Your task to perform on an android device: turn on showing notifications on the lock screen Image 0: 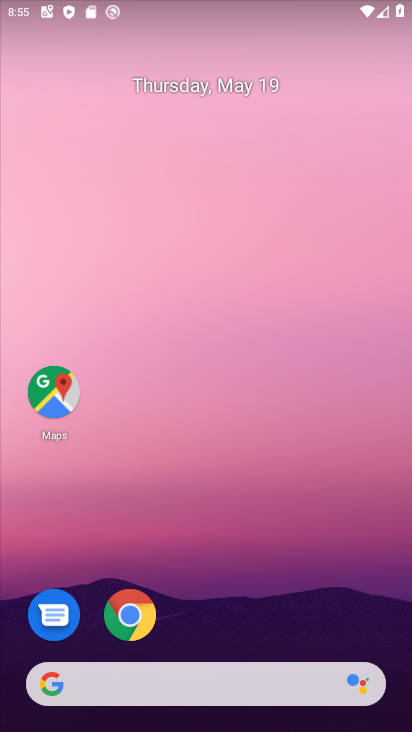
Step 0: drag from (226, 563) to (369, 5)
Your task to perform on an android device: turn on showing notifications on the lock screen Image 1: 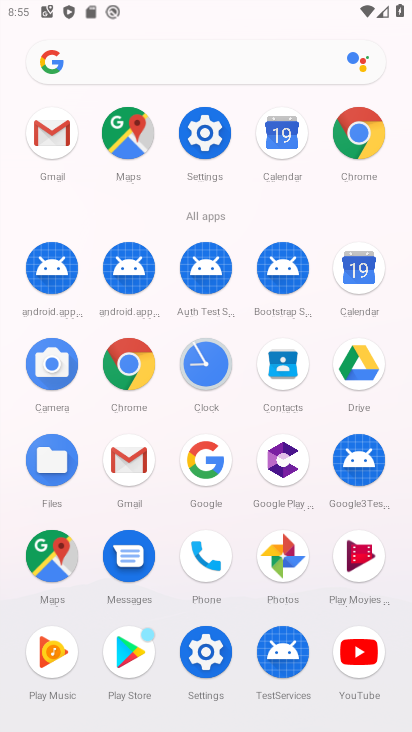
Step 1: click (205, 668)
Your task to perform on an android device: turn on showing notifications on the lock screen Image 2: 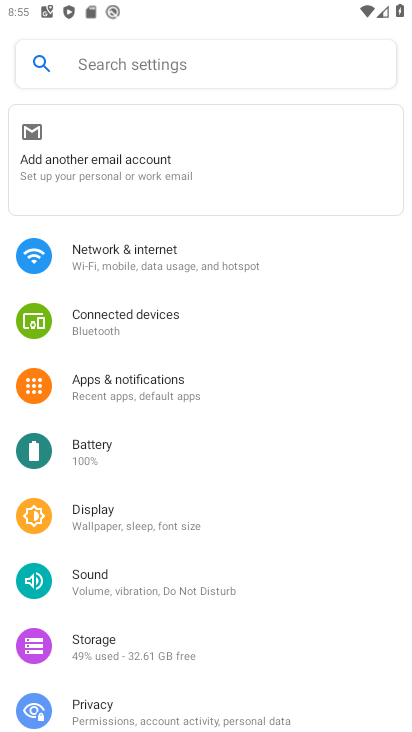
Step 2: click (148, 385)
Your task to perform on an android device: turn on showing notifications on the lock screen Image 3: 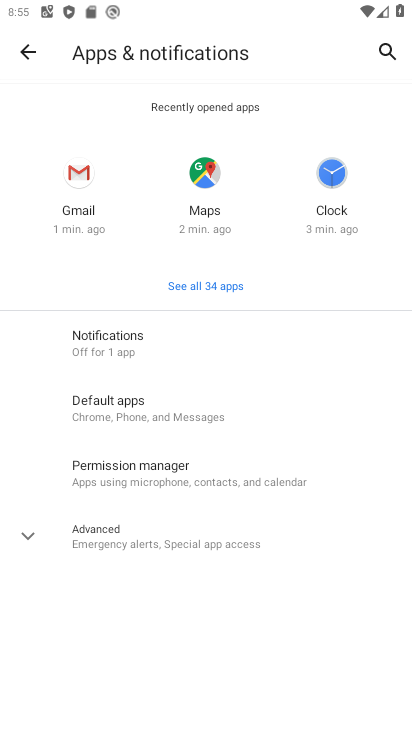
Step 3: click (78, 363)
Your task to perform on an android device: turn on showing notifications on the lock screen Image 4: 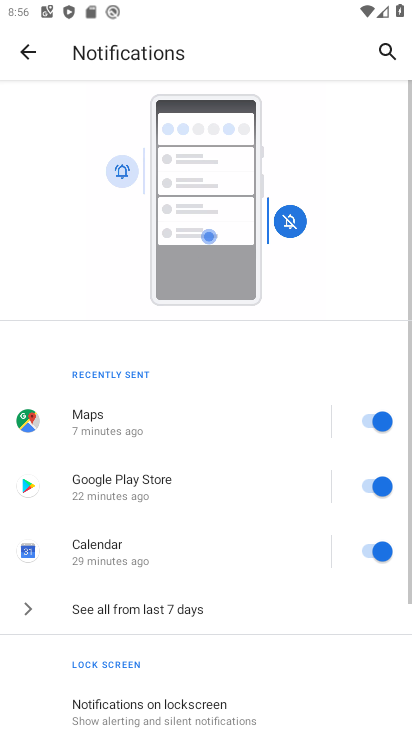
Step 4: drag from (87, 622) to (150, 227)
Your task to perform on an android device: turn on showing notifications on the lock screen Image 5: 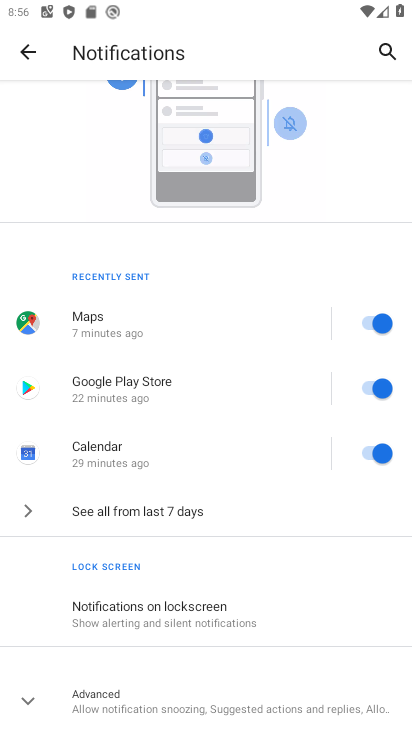
Step 5: click (211, 605)
Your task to perform on an android device: turn on showing notifications on the lock screen Image 6: 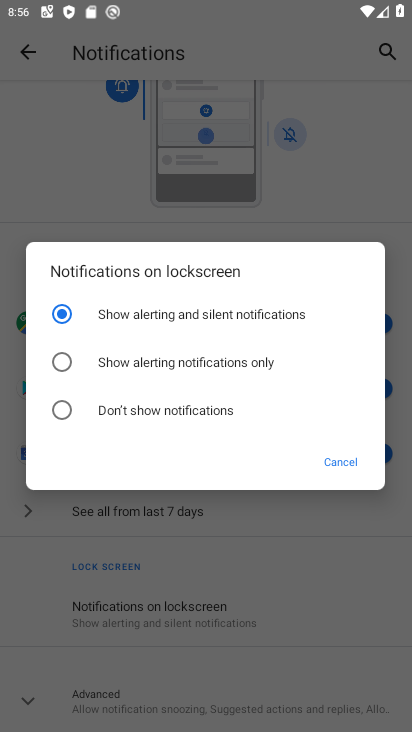
Step 6: click (116, 370)
Your task to perform on an android device: turn on showing notifications on the lock screen Image 7: 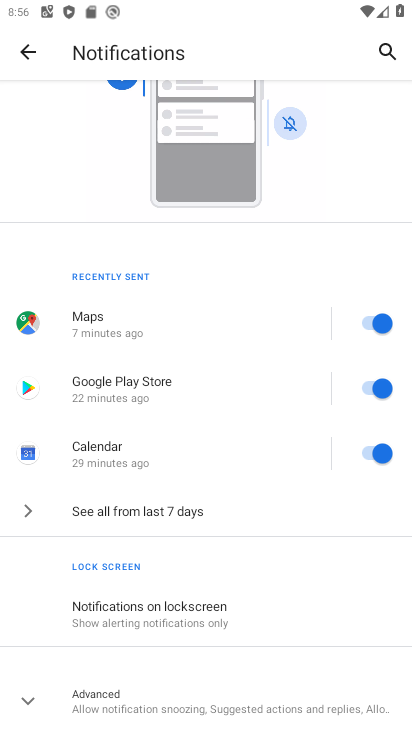
Step 7: task complete